Your task to perform on an android device: Go to Reddit.com Image 0: 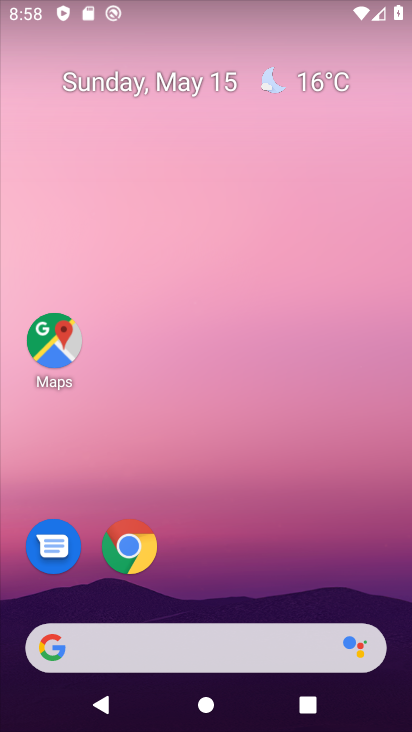
Step 0: click (245, 655)
Your task to perform on an android device: Go to Reddit.com Image 1: 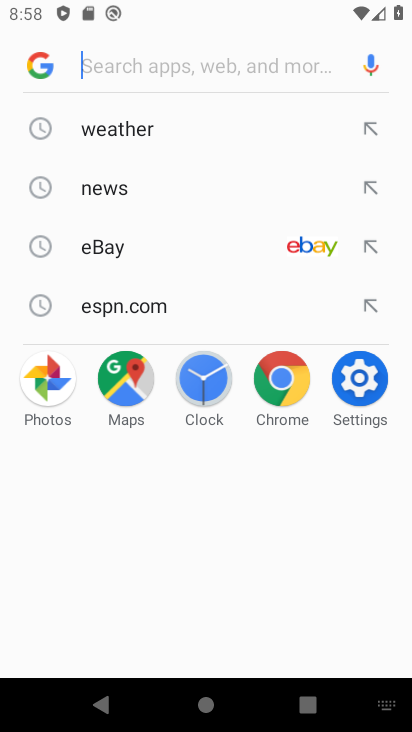
Step 1: type "Reddit.com"
Your task to perform on an android device: Go to Reddit.com Image 2: 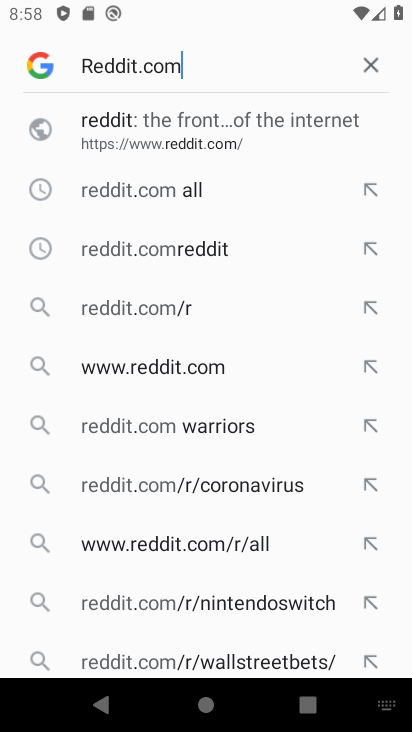
Step 2: click (176, 135)
Your task to perform on an android device: Go to Reddit.com Image 3: 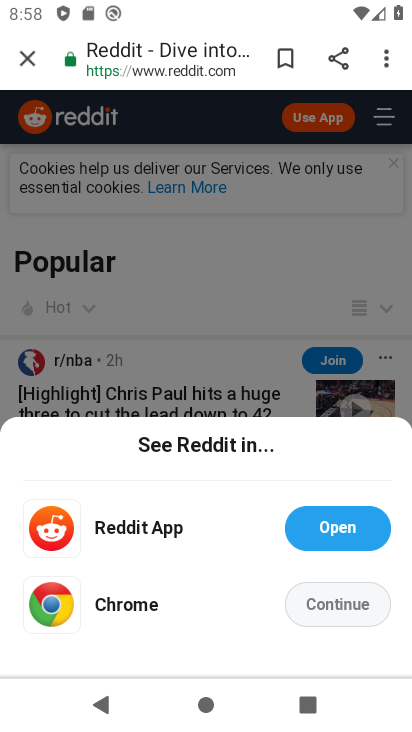
Step 3: click (352, 610)
Your task to perform on an android device: Go to Reddit.com Image 4: 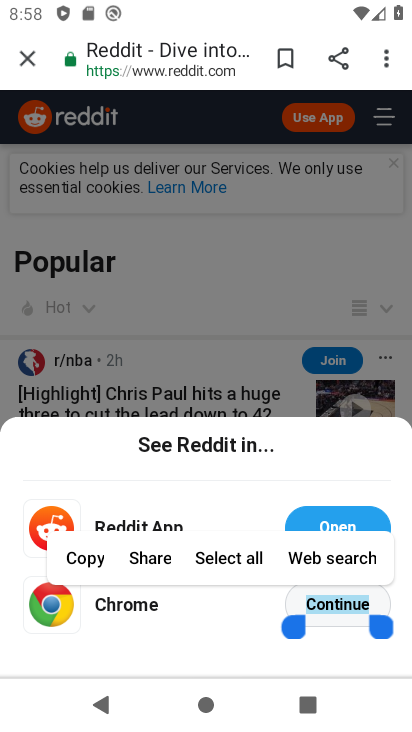
Step 4: click (367, 622)
Your task to perform on an android device: Go to Reddit.com Image 5: 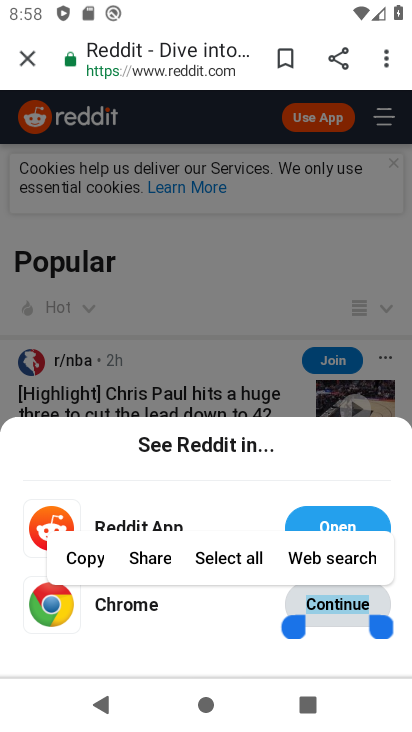
Step 5: click (345, 616)
Your task to perform on an android device: Go to Reddit.com Image 6: 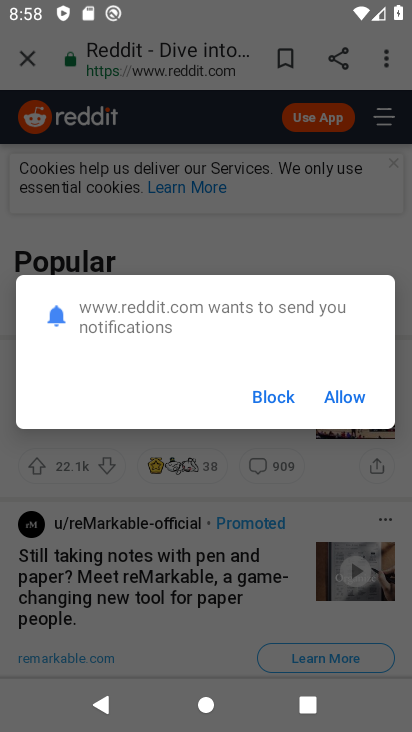
Step 6: click (342, 632)
Your task to perform on an android device: Go to Reddit.com Image 7: 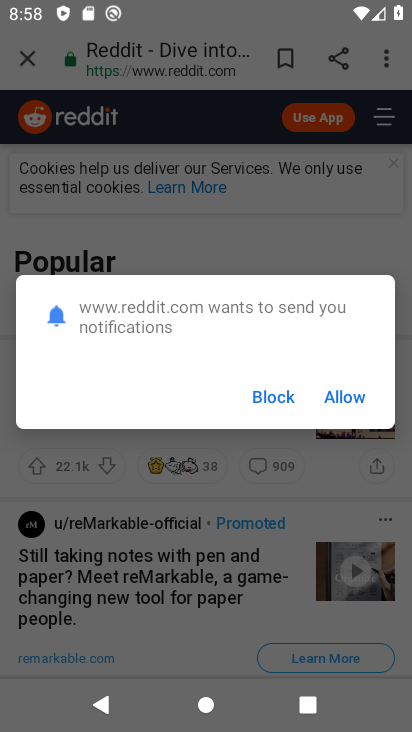
Step 7: click (331, 387)
Your task to perform on an android device: Go to Reddit.com Image 8: 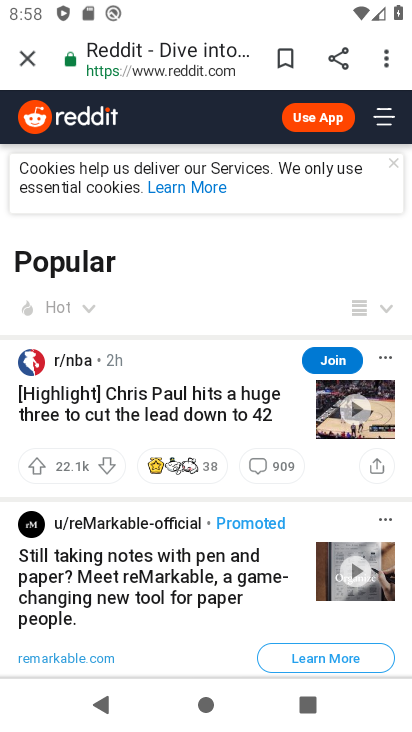
Step 8: task complete